Your task to perform on an android device: change the clock display to show seconds Image 0: 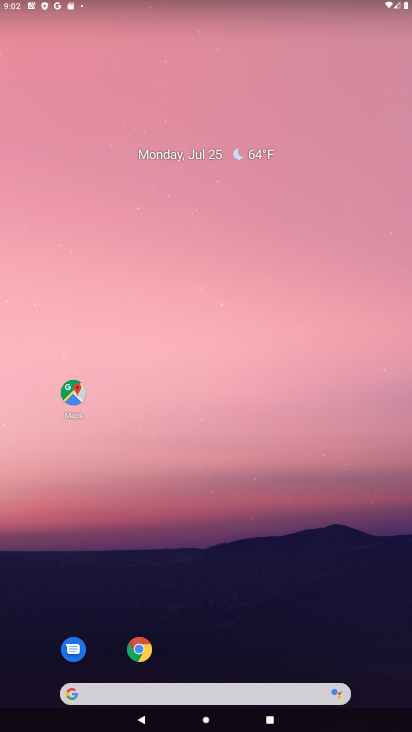
Step 0: drag from (287, 619) to (239, 147)
Your task to perform on an android device: change the clock display to show seconds Image 1: 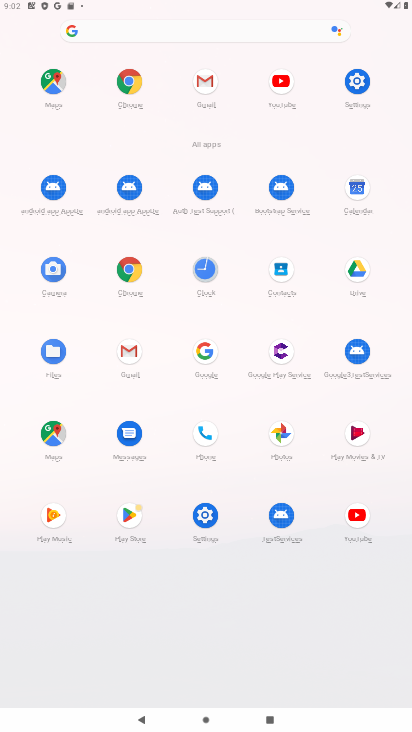
Step 1: click (211, 277)
Your task to perform on an android device: change the clock display to show seconds Image 2: 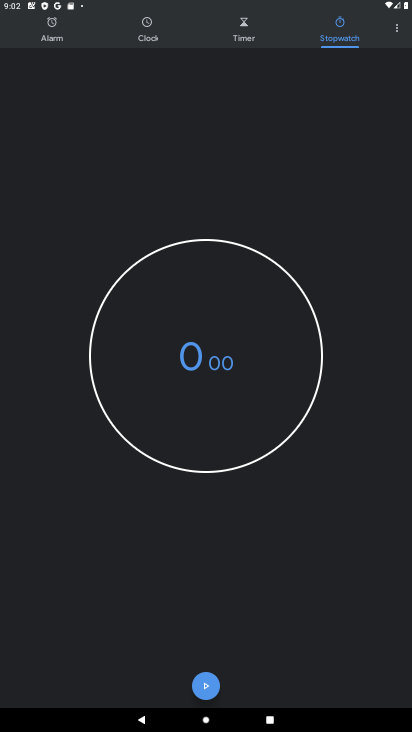
Step 2: click (394, 24)
Your task to perform on an android device: change the clock display to show seconds Image 3: 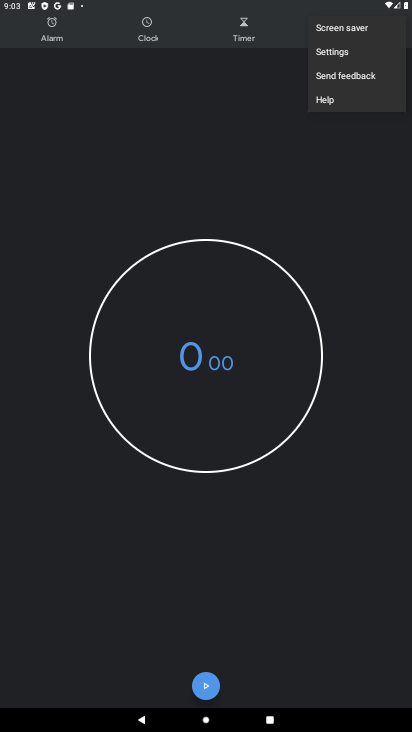
Step 3: click (333, 52)
Your task to perform on an android device: change the clock display to show seconds Image 4: 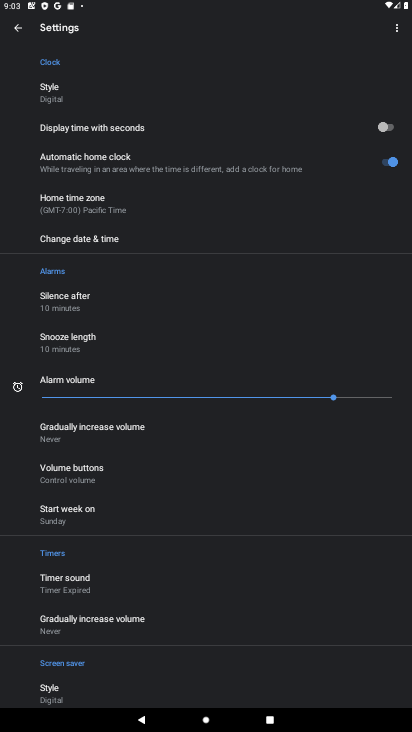
Step 4: click (391, 131)
Your task to perform on an android device: change the clock display to show seconds Image 5: 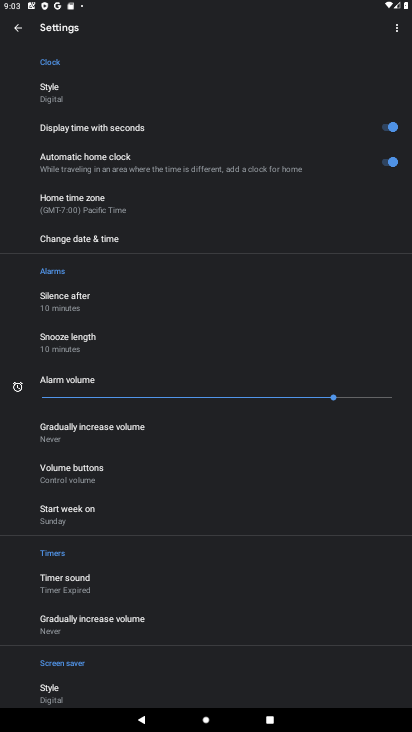
Step 5: task complete